Your task to perform on an android device: turn on the 24-hour format for clock Image 0: 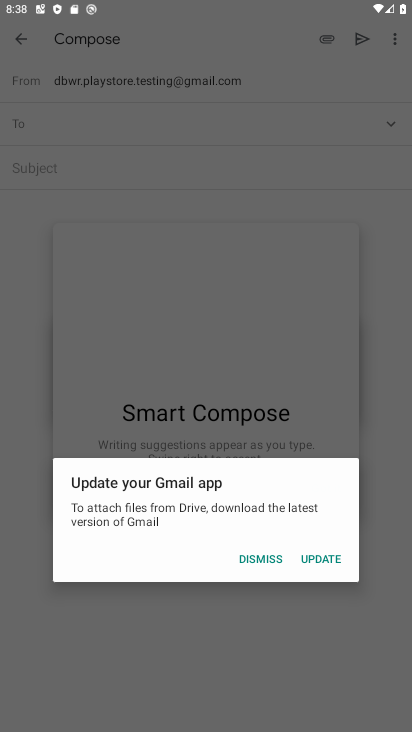
Step 0: press back button
Your task to perform on an android device: turn on the 24-hour format for clock Image 1: 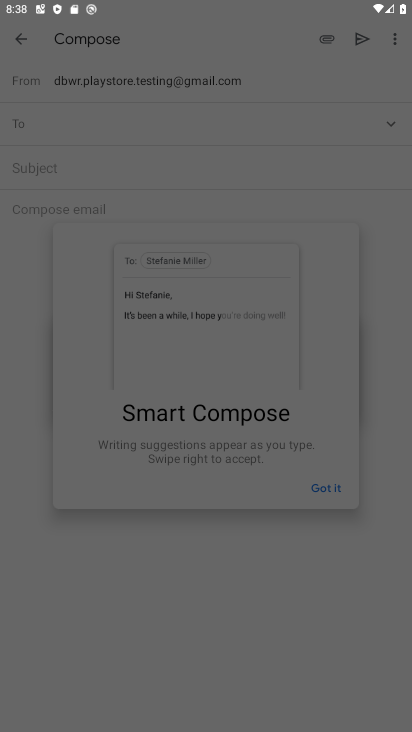
Step 1: press home button
Your task to perform on an android device: turn on the 24-hour format for clock Image 2: 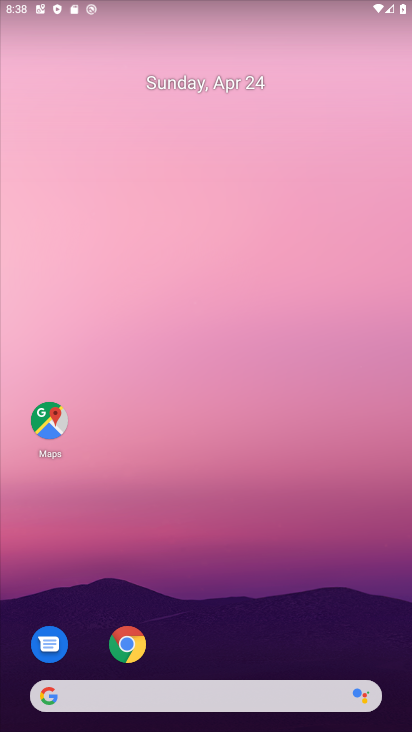
Step 2: drag from (209, 675) to (307, 51)
Your task to perform on an android device: turn on the 24-hour format for clock Image 3: 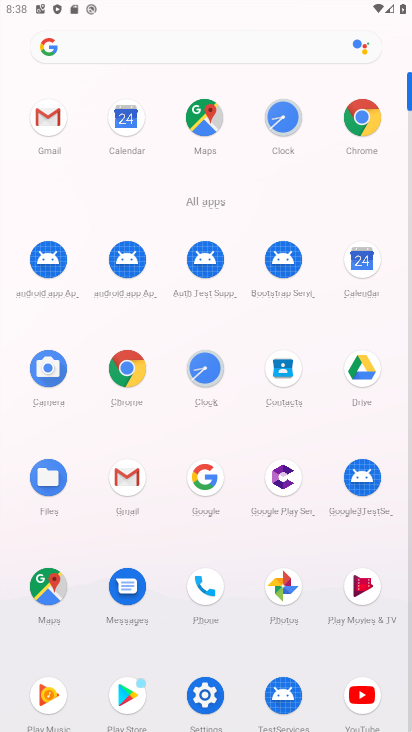
Step 3: click (203, 366)
Your task to perform on an android device: turn on the 24-hour format for clock Image 4: 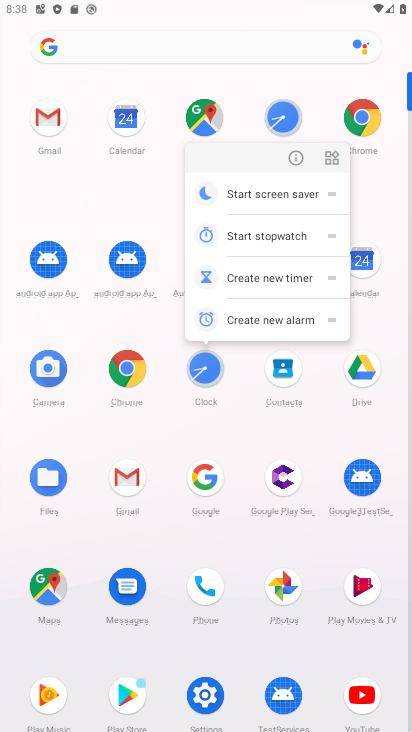
Step 4: click (194, 380)
Your task to perform on an android device: turn on the 24-hour format for clock Image 5: 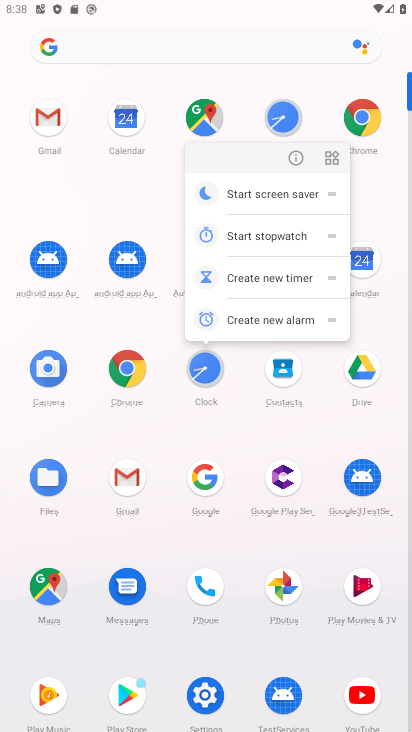
Step 5: click (205, 369)
Your task to perform on an android device: turn on the 24-hour format for clock Image 6: 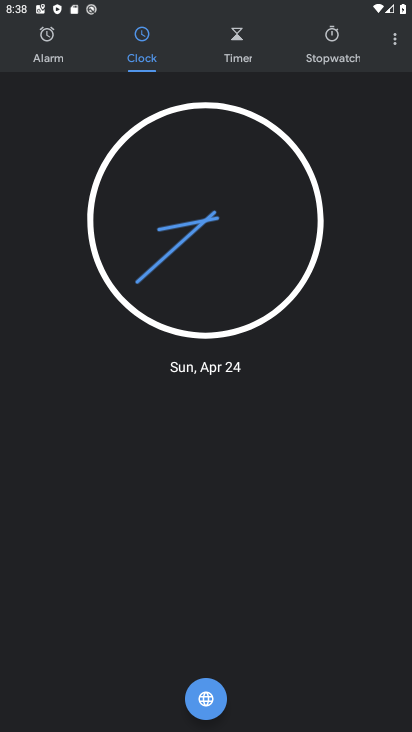
Step 6: click (395, 45)
Your task to perform on an android device: turn on the 24-hour format for clock Image 7: 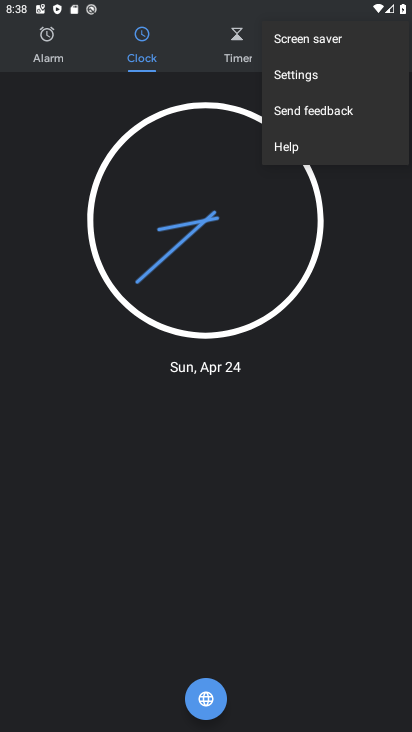
Step 7: click (376, 82)
Your task to perform on an android device: turn on the 24-hour format for clock Image 8: 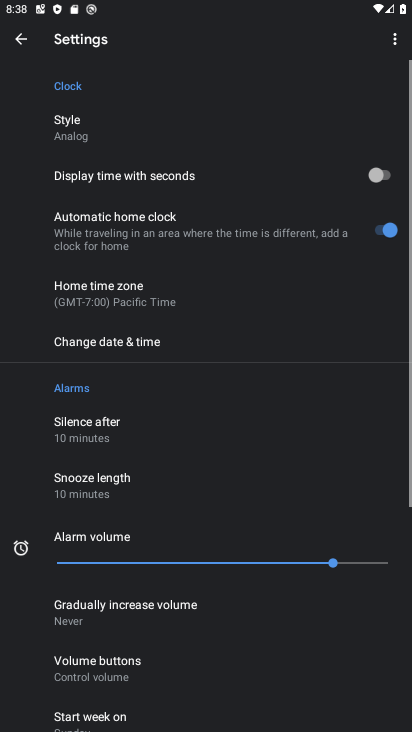
Step 8: drag from (209, 589) to (234, 399)
Your task to perform on an android device: turn on the 24-hour format for clock Image 9: 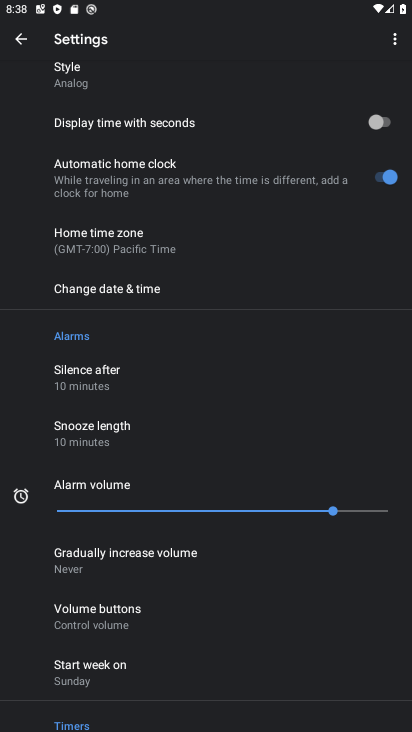
Step 9: click (210, 285)
Your task to perform on an android device: turn on the 24-hour format for clock Image 10: 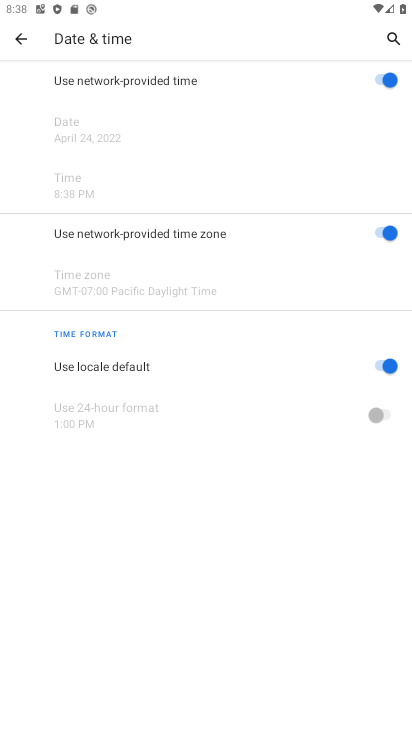
Step 10: click (379, 369)
Your task to perform on an android device: turn on the 24-hour format for clock Image 11: 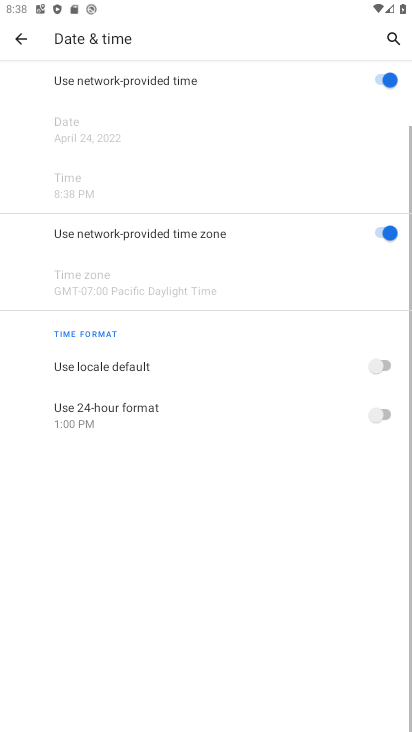
Step 11: click (388, 407)
Your task to perform on an android device: turn on the 24-hour format for clock Image 12: 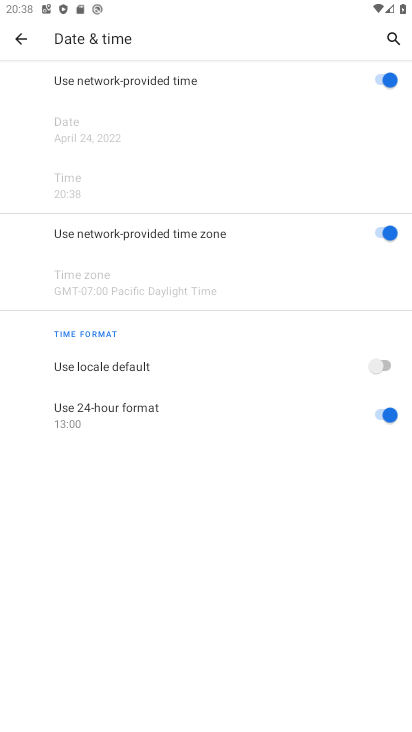
Step 12: task complete